Your task to perform on an android device: Open CNN.com Image 0: 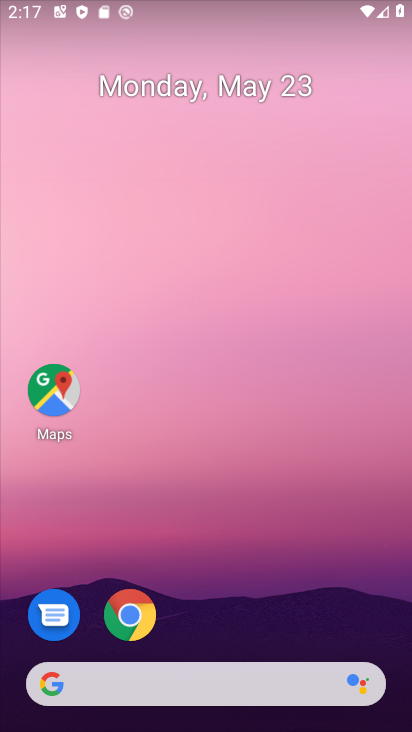
Step 0: drag from (353, 625) to (346, 231)
Your task to perform on an android device: Open CNN.com Image 1: 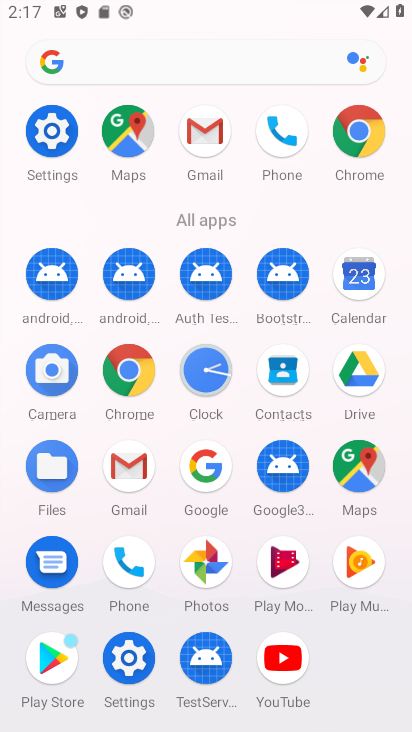
Step 1: click (131, 395)
Your task to perform on an android device: Open CNN.com Image 2: 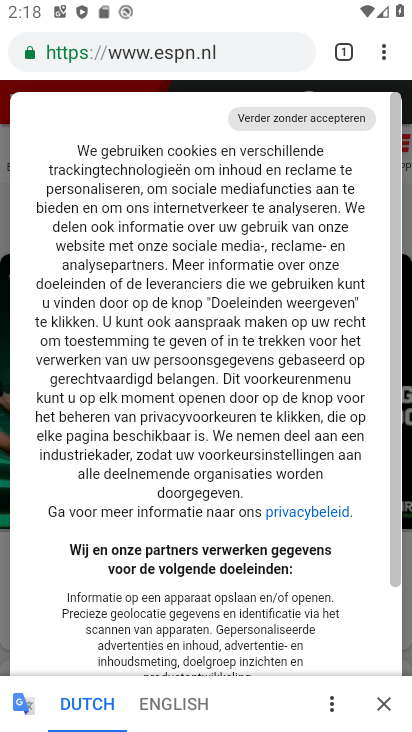
Step 2: click (216, 50)
Your task to perform on an android device: Open CNN.com Image 3: 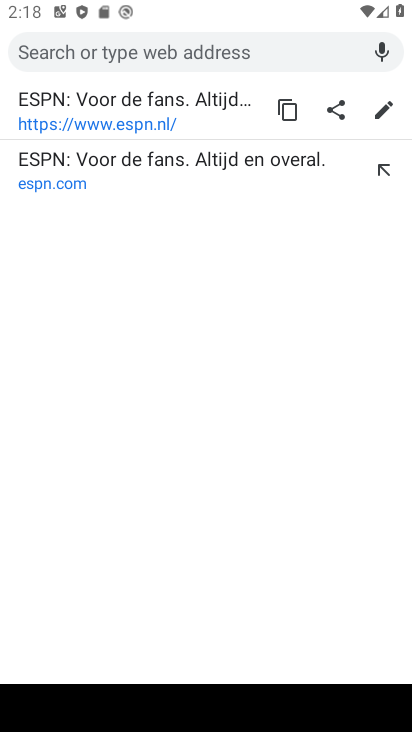
Step 3: type "cnn.com"
Your task to perform on an android device: Open CNN.com Image 4: 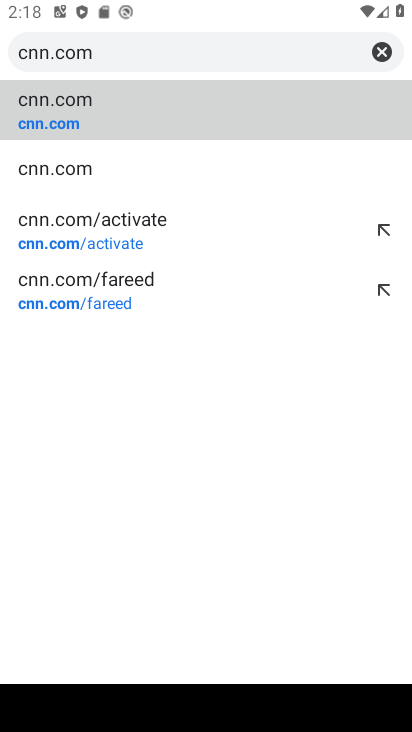
Step 4: click (105, 177)
Your task to perform on an android device: Open CNN.com Image 5: 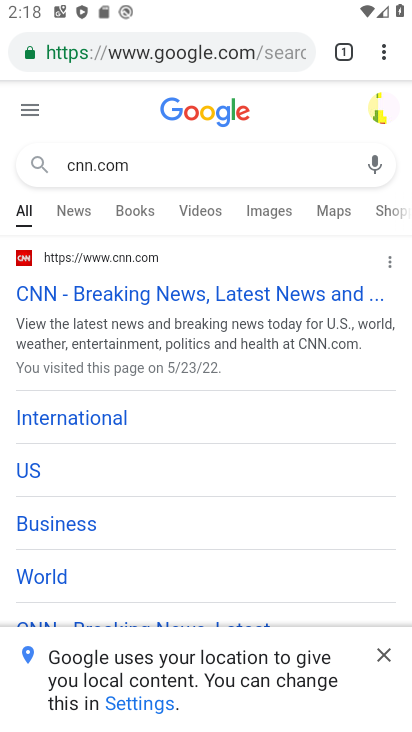
Step 5: task complete